Your task to perform on an android device: Open the phone app and click the voicemail tab. Image 0: 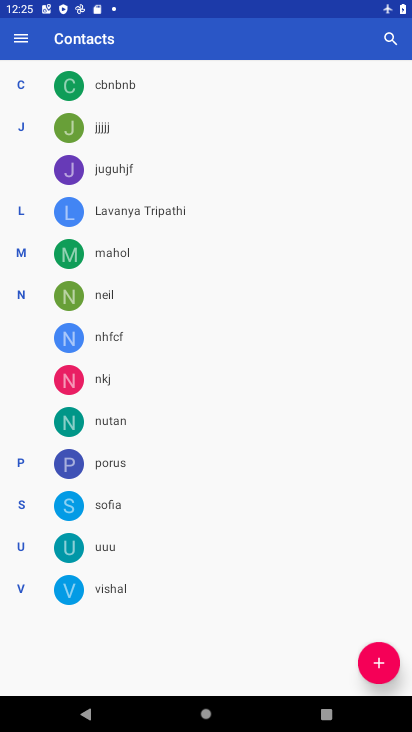
Step 0: press home button
Your task to perform on an android device: Open the phone app and click the voicemail tab. Image 1: 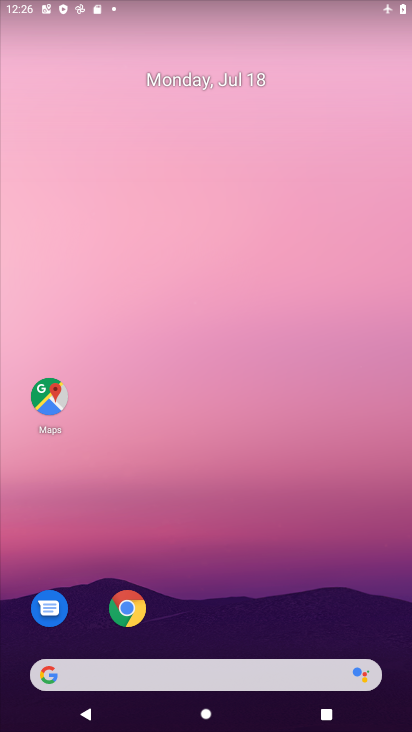
Step 1: drag from (348, 431) to (281, 1)
Your task to perform on an android device: Open the phone app and click the voicemail tab. Image 2: 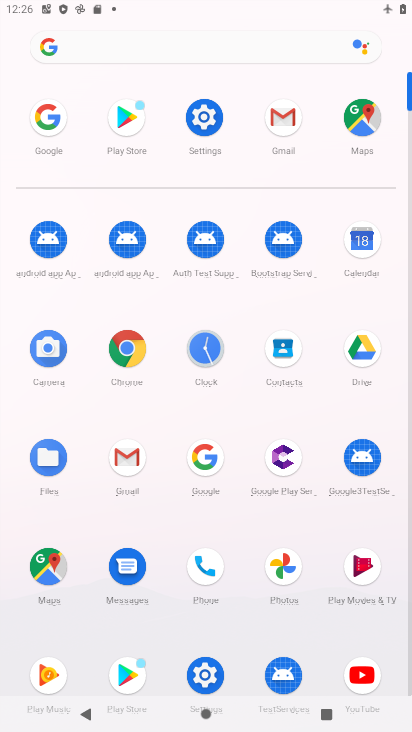
Step 2: click (203, 564)
Your task to perform on an android device: Open the phone app and click the voicemail tab. Image 3: 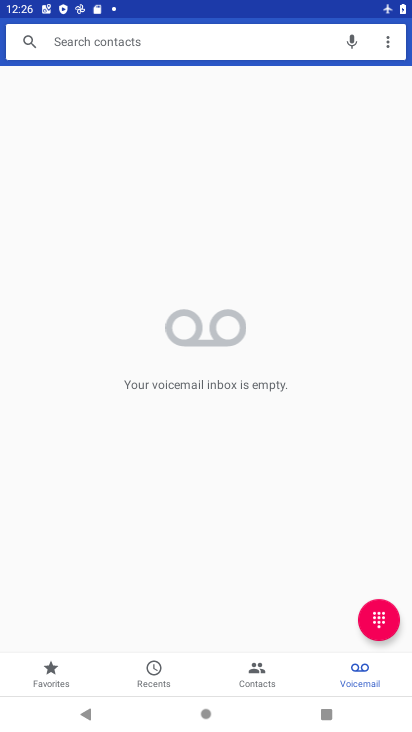
Step 3: task complete